Your task to perform on an android device: Open Google Chrome and click the shortcut for Amazon.com Image 0: 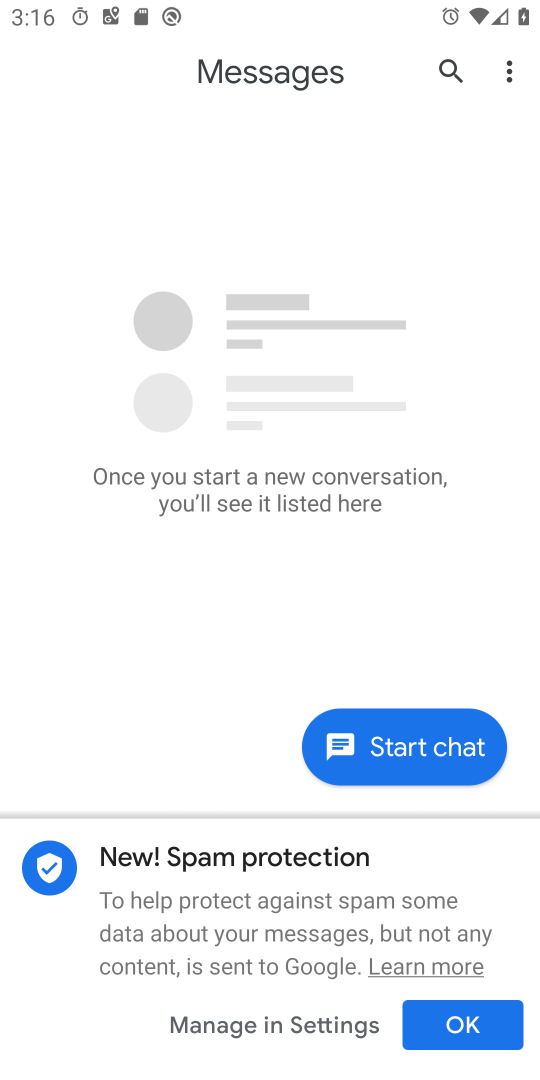
Step 0: press back button
Your task to perform on an android device: Open Google Chrome and click the shortcut for Amazon.com Image 1: 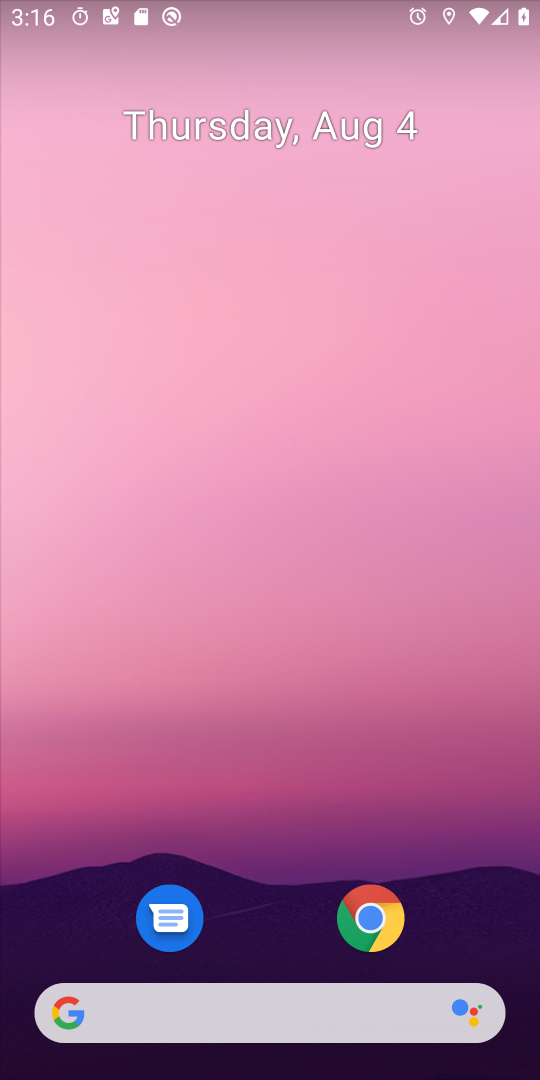
Step 1: click (370, 897)
Your task to perform on an android device: Open Google Chrome and click the shortcut for Amazon.com Image 2: 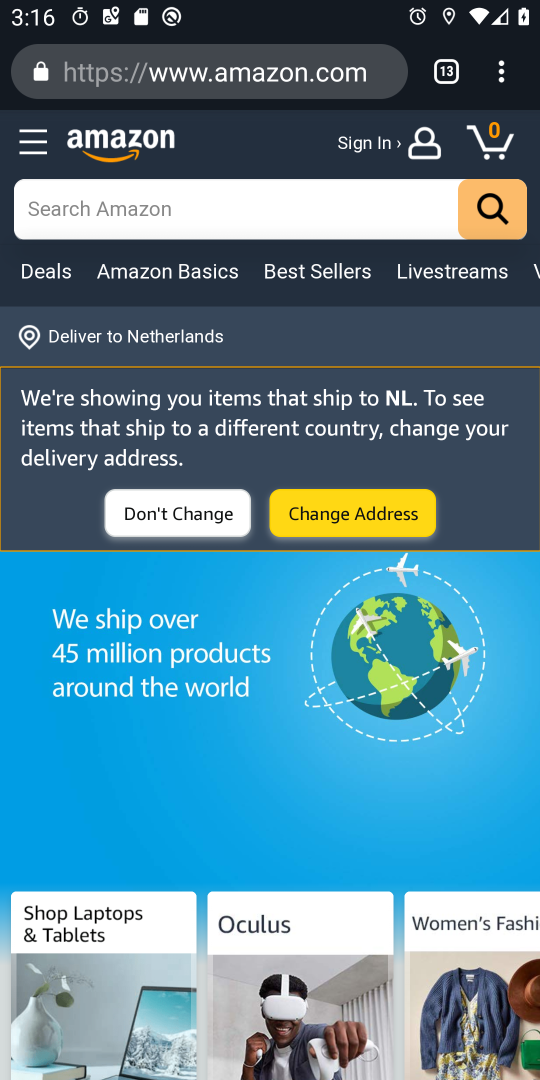
Step 2: task complete